Your task to perform on an android device: see creations saved in the google photos Image 0: 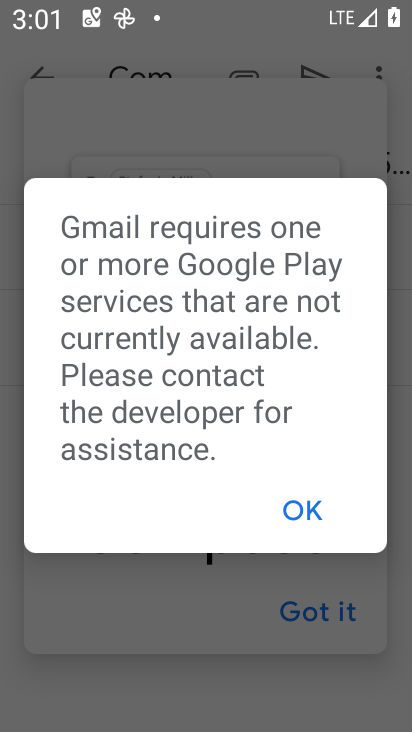
Step 0: press home button
Your task to perform on an android device: see creations saved in the google photos Image 1: 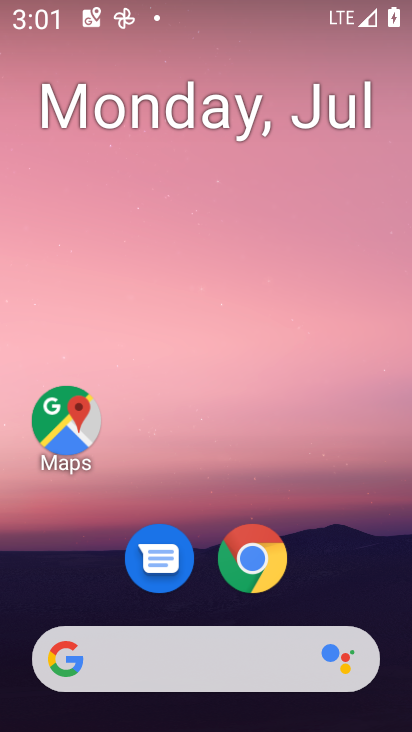
Step 1: drag from (372, 577) to (386, 88)
Your task to perform on an android device: see creations saved in the google photos Image 2: 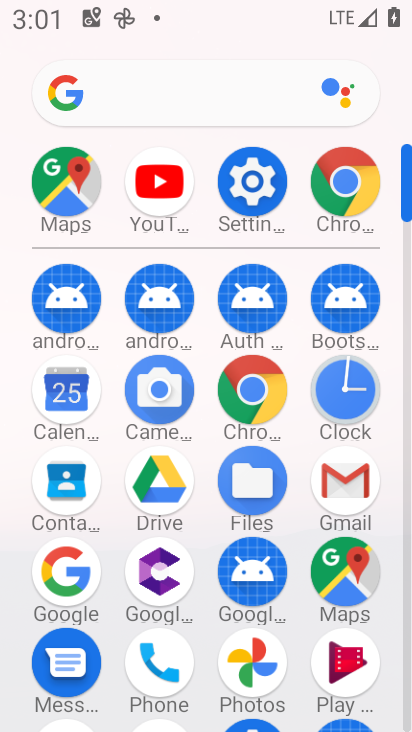
Step 2: click (251, 653)
Your task to perform on an android device: see creations saved in the google photos Image 3: 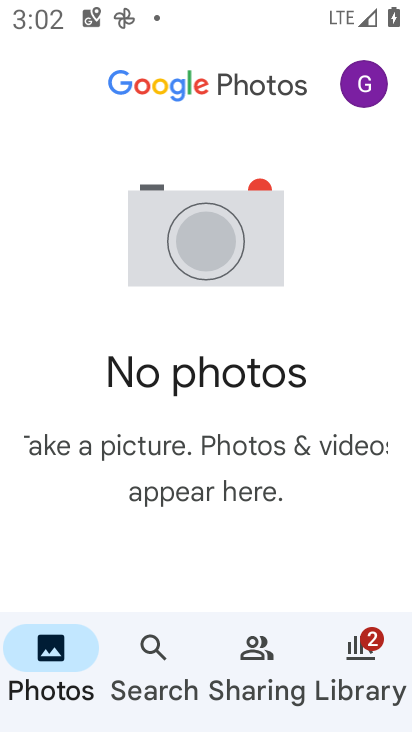
Step 3: click (151, 665)
Your task to perform on an android device: see creations saved in the google photos Image 4: 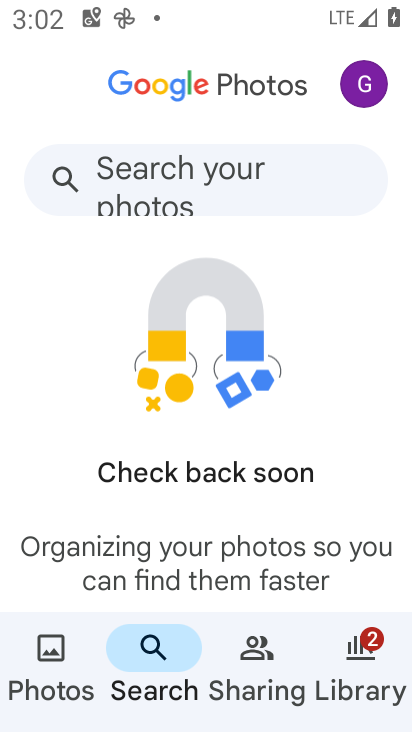
Step 4: drag from (259, 527) to (263, 433)
Your task to perform on an android device: see creations saved in the google photos Image 5: 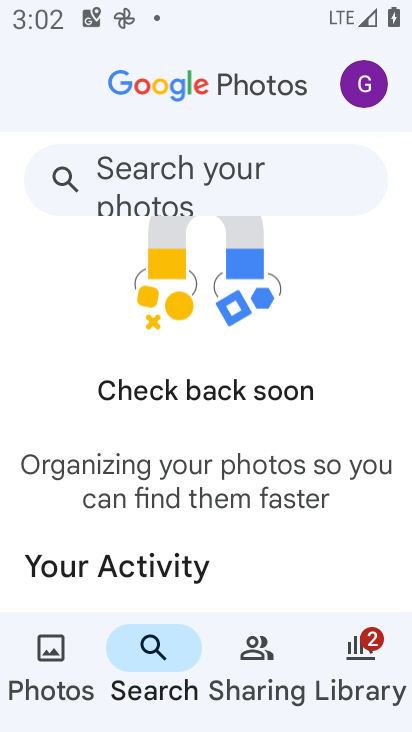
Step 5: drag from (265, 505) to (267, 407)
Your task to perform on an android device: see creations saved in the google photos Image 6: 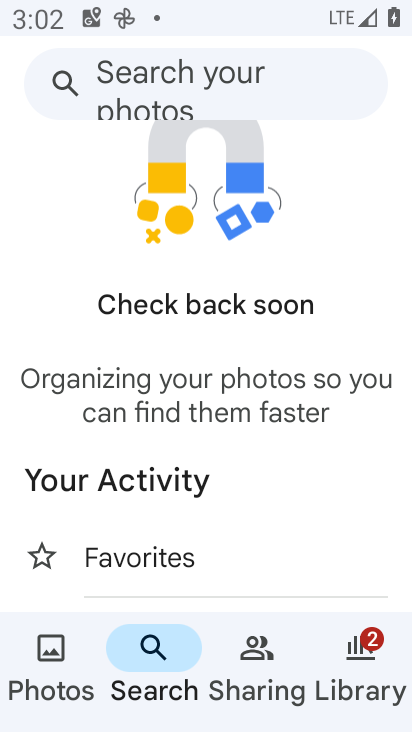
Step 6: drag from (277, 495) to (280, 388)
Your task to perform on an android device: see creations saved in the google photos Image 7: 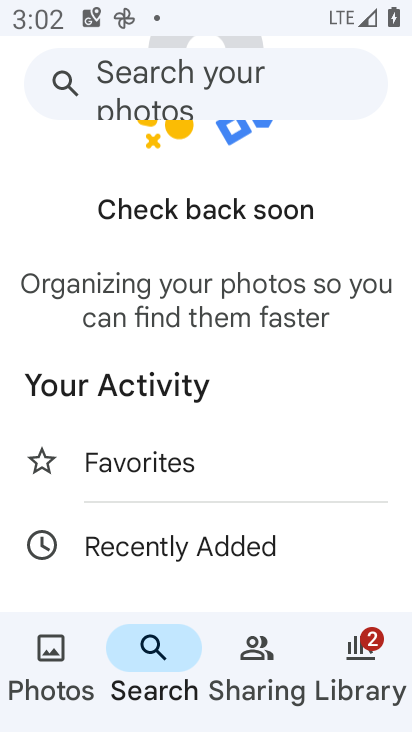
Step 7: drag from (314, 564) to (319, 451)
Your task to perform on an android device: see creations saved in the google photos Image 8: 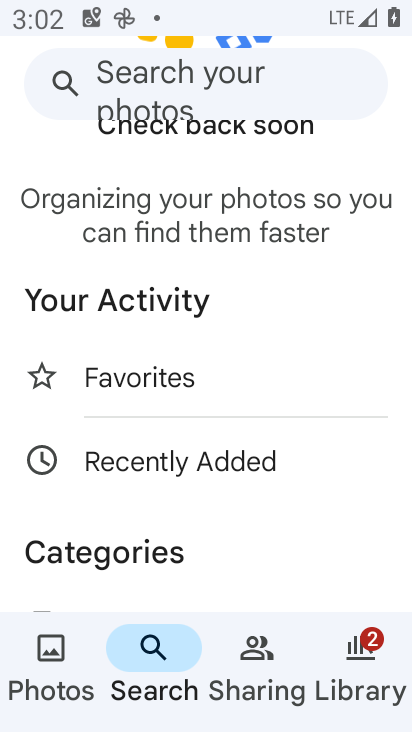
Step 8: drag from (302, 571) to (298, 491)
Your task to perform on an android device: see creations saved in the google photos Image 9: 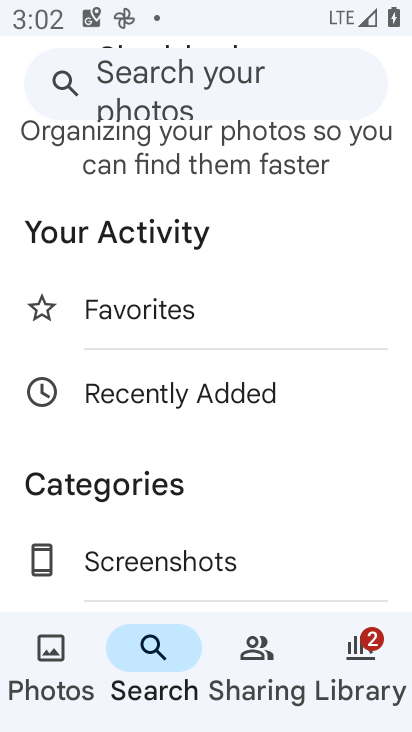
Step 9: drag from (291, 539) to (289, 410)
Your task to perform on an android device: see creations saved in the google photos Image 10: 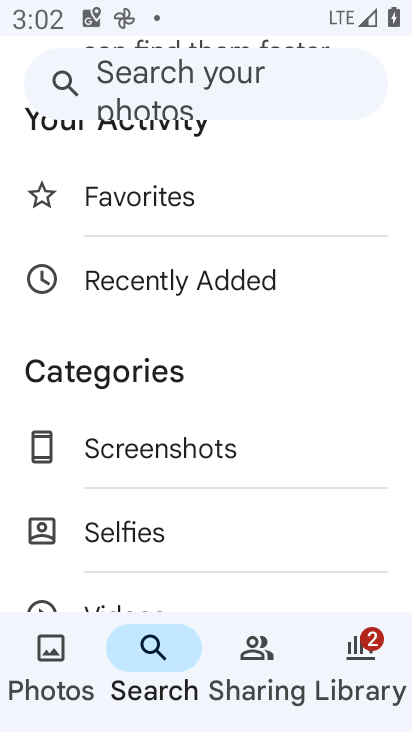
Step 10: drag from (278, 512) to (272, 390)
Your task to perform on an android device: see creations saved in the google photos Image 11: 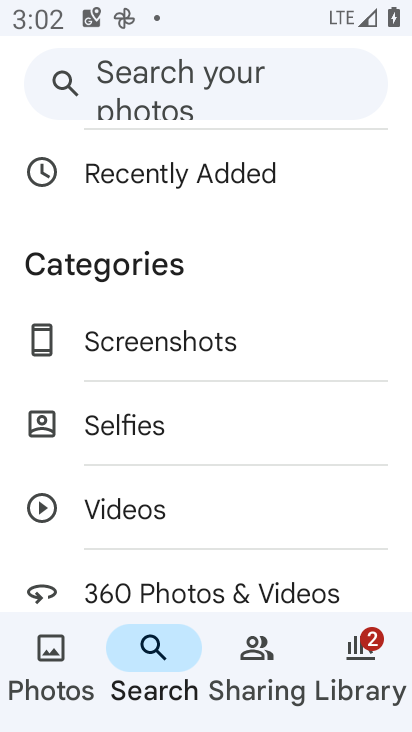
Step 11: drag from (268, 489) to (273, 365)
Your task to perform on an android device: see creations saved in the google photos Image 12: 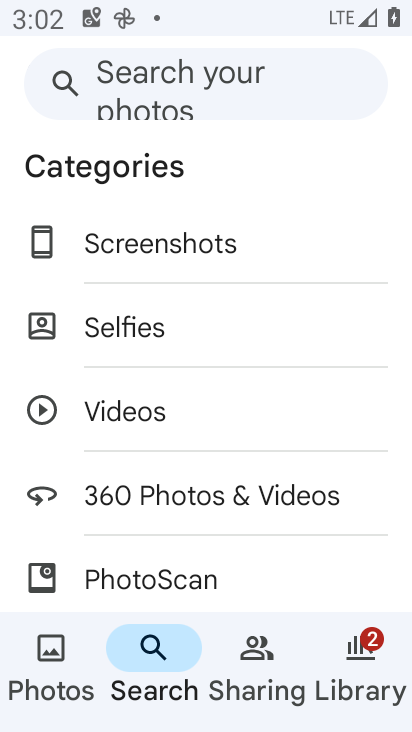
Step 12: drag from (254, 504) to (253, 348)
Your task to perform on an android device: see creations saved in the google photos Image 13: 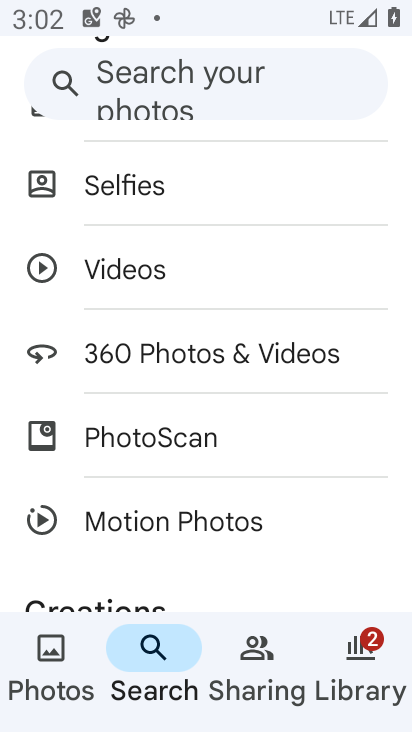
Step 13: drag from (266, 540) to (260, 331)
Your task to perform on an android device: see creations saved in the google photos Image 14: 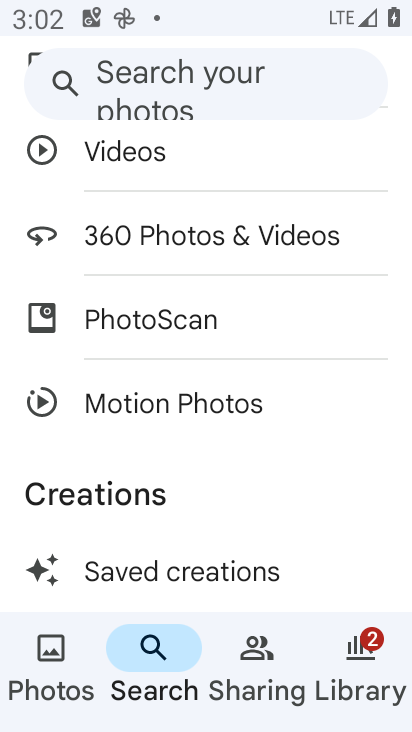
Step 14: click (245, 561)
Your task to perform on an android device: see creations saved in the google photos Image 15: 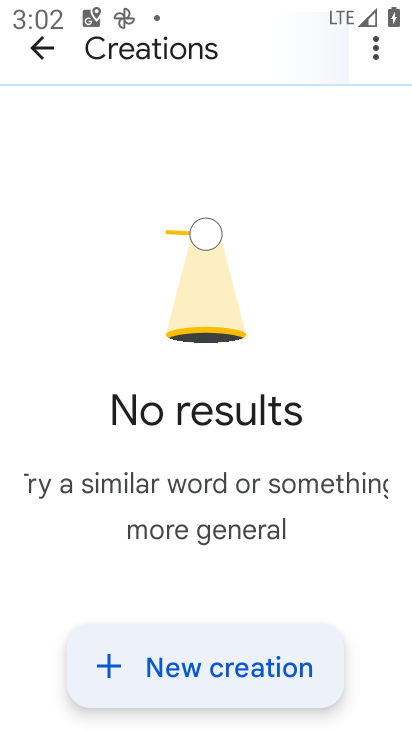
Step 15: task complete